Your task to perform on an android device: Play the last video I watched on Youtube Image 0: 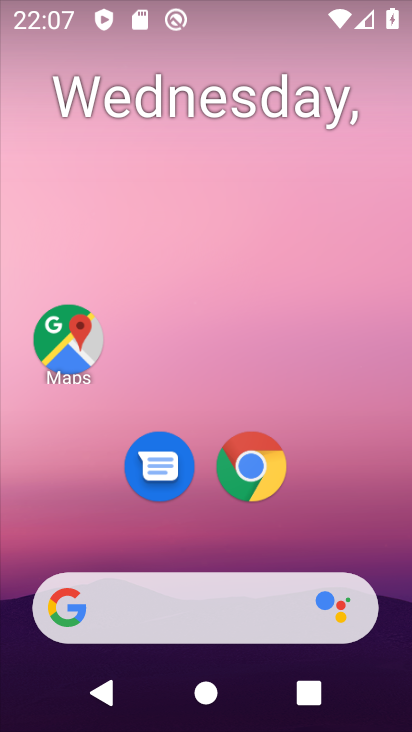
Step 0: drag from (202, 538) to (242, 29)
Your task to perform on an android device: Play the last video I watched on Youtube Image 1: 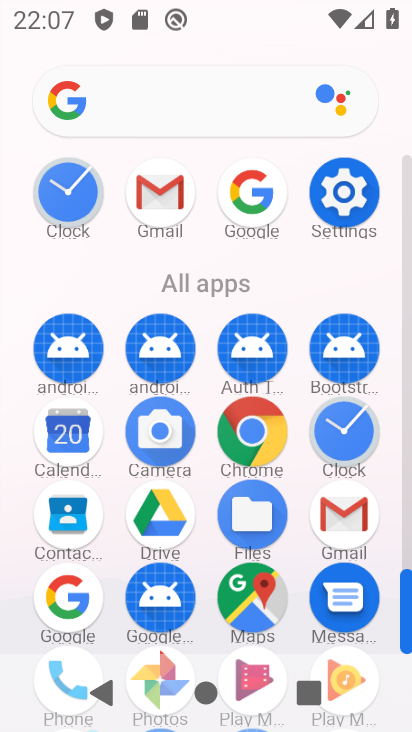
Step 1: drag from (202, 554) to (229, 165)
Your task to perform on an android device: Play the last video I watched on Youtube Image 2: 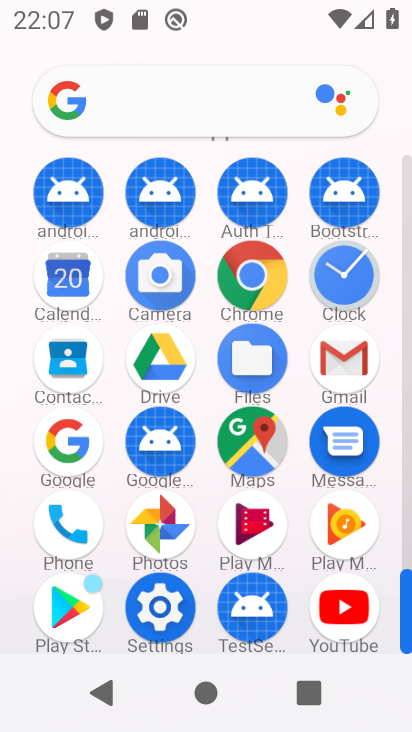
Step 2: click (342, 598)
Your task to perform on an android device: Play the last video I watched on Youtube Image 3: 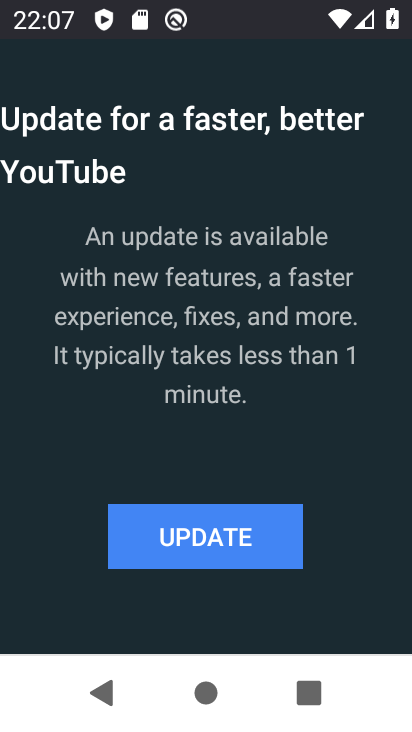
Step 3: click (204, 535)
Your task to perform on an android device: Play the last video I watched on Youtube Image 4: 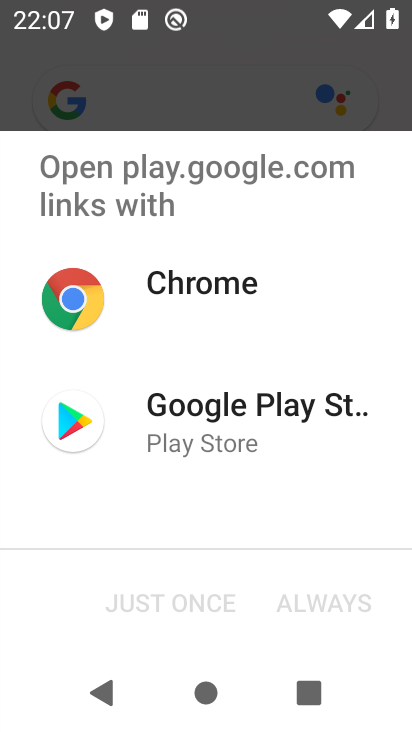
Step 4: click (129, 423)
Your task to perform on an android device: Play the last video I watched on Youtube Image 5: 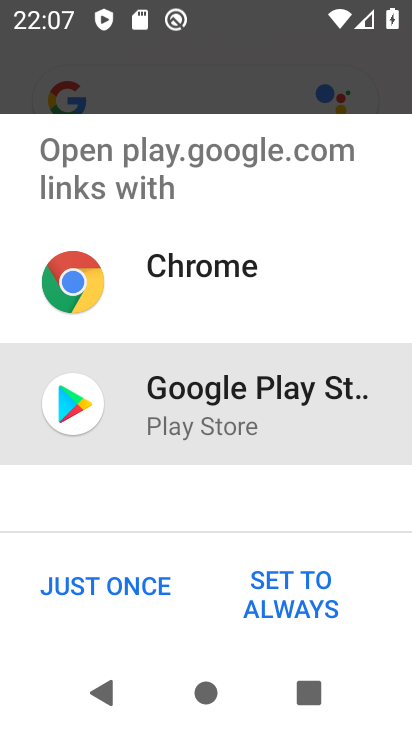
Step 5: click (97, 589)
Your task to perform on an android device: Play the last video I watched on Youtube Image 6: 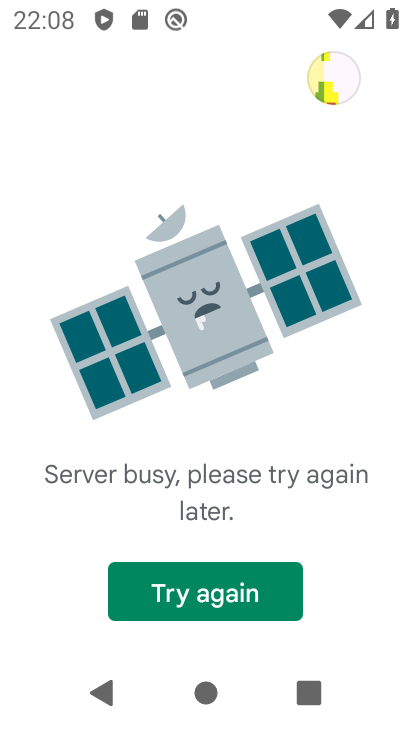
Step 6: click (205, 595)
Your task to perform on an android device: Play the last video I watched on Youtube Image 7: 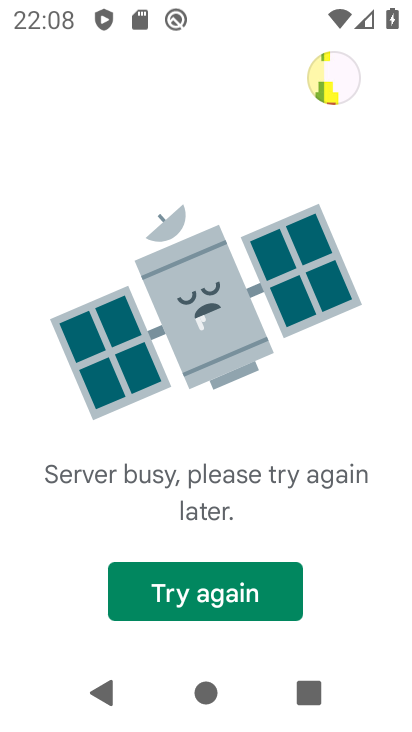
Step 7: task complete